Your task to perform on an android device: set the stopwatch Image 0: 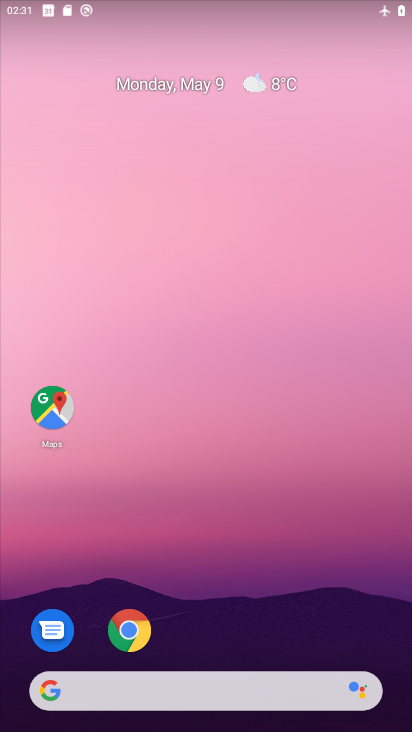
Step 0: drag from (254, 650) to (283, 106)
Your task to perform on an android device: set the stopwatch Image 1: 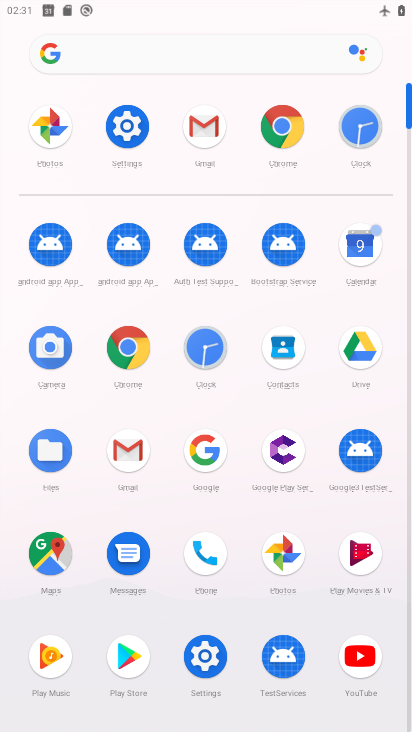
Step 1: click (209, 369)
Your task to perform on an android device: set the stopwatch Image 2: 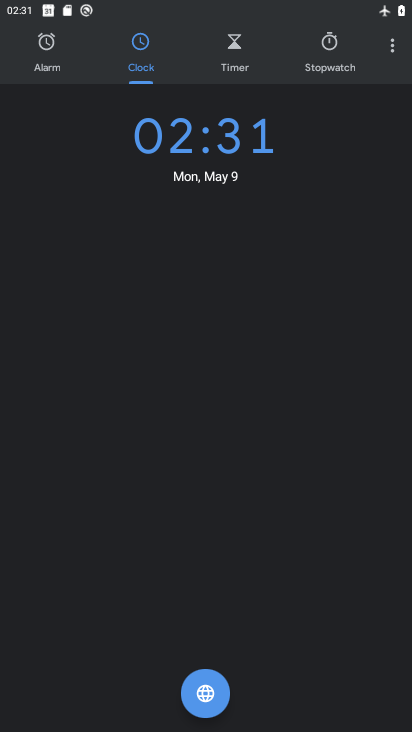
Step 2: click (327, 74)
Your task to perform on an android device: set the stopwatch Image 3: 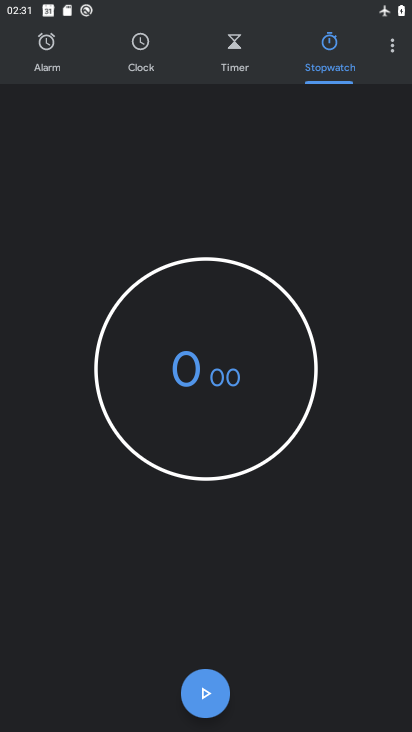
Step 3: click (198, 702)
Your task to perform on an android device: set the stopwatch Image 4: 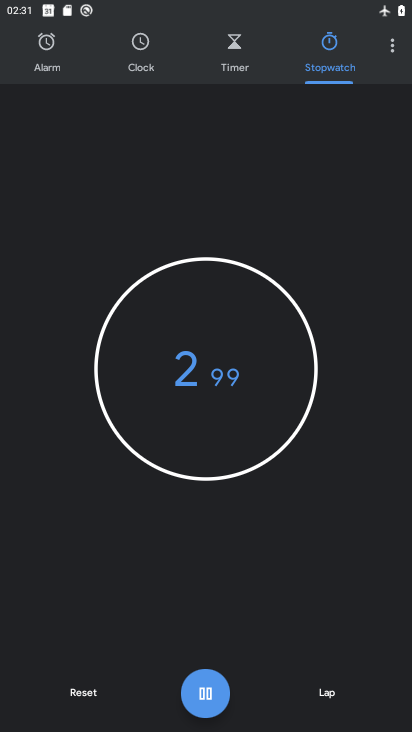
Step 4: task complete